Your task to perform on an android device: set the stopwatch Image 0: 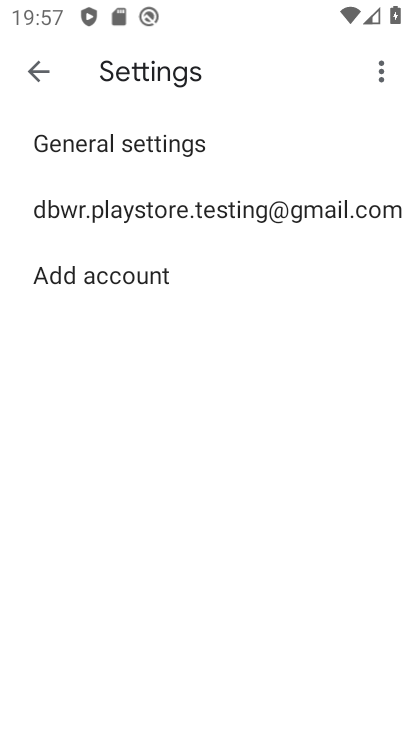
Step 0: press home button
Your task to perform on an android device: set the stopwatch Image 1: 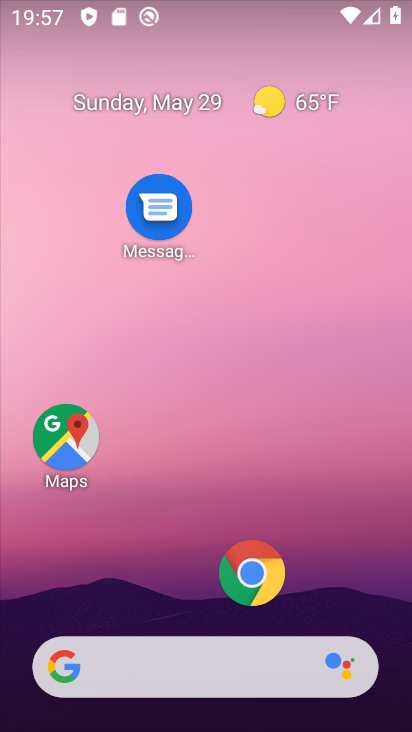
Step 1: drag from (193, 595) to (212, 236)
Your task to perform on an android device: set the stopwatch Image 2: 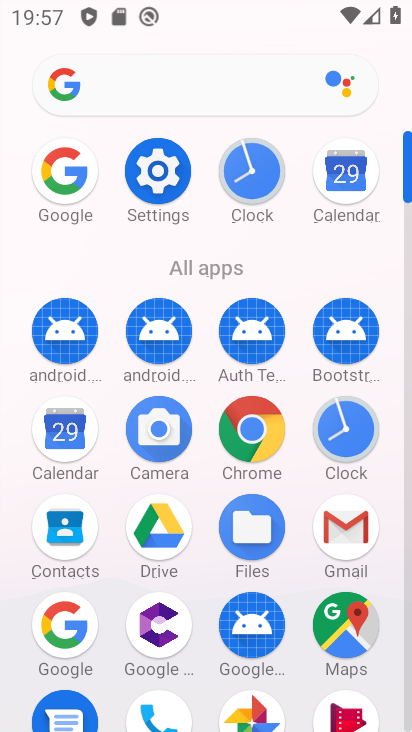
Step 2: click (232, 187)
Your task to perform on an android device: set the stopwatch Image 3: 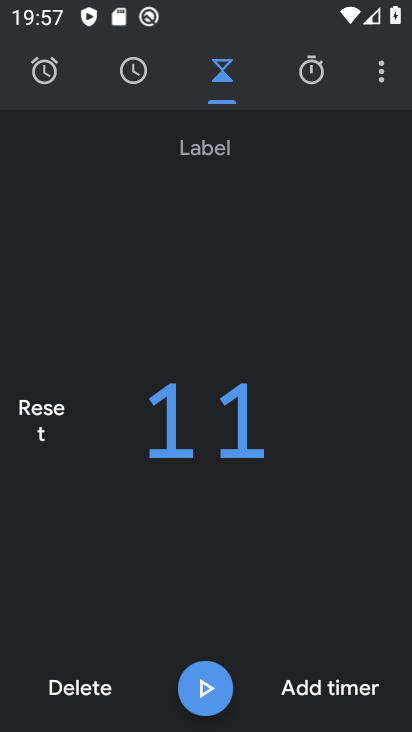
Step 3: click (305, 81)
Your task to perform on an android device: set the stopwatch Image 4: 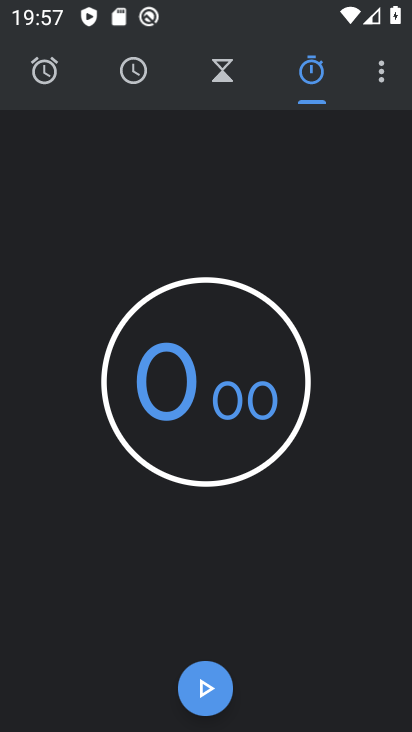
Step 4: click (207, 694)
Your task to perform on an android device: set the stopwatch Image 5: 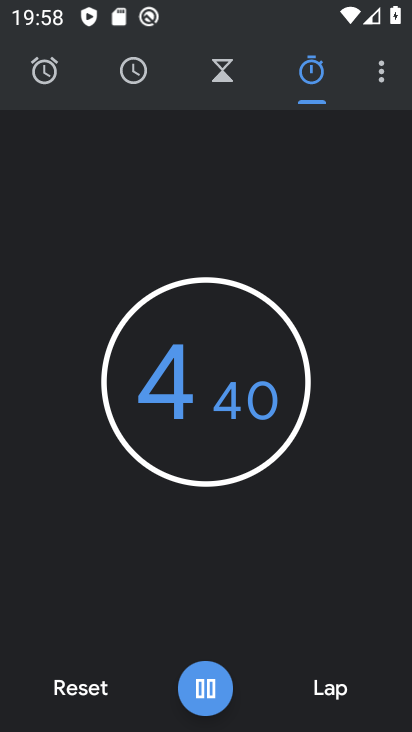
Step 5: task complete